Your task to perform on an android device: see sites visited before in the chrome app Image 0: 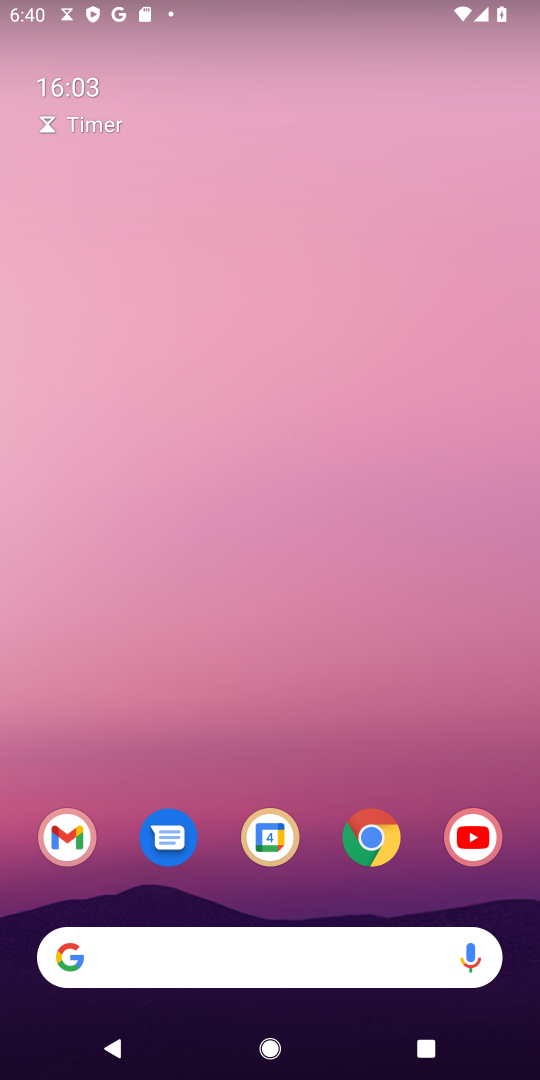
Step 0: press home button
Your task to perform on an android device: see sites visited before in the chrome app Image 1: 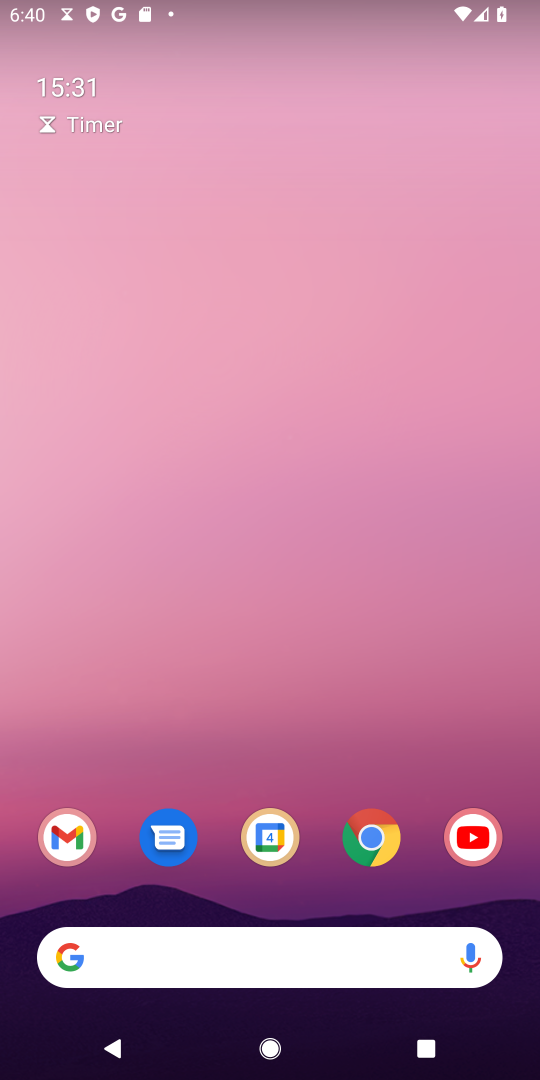
Step 1: click (375, 830)
Your task to perform on an android device: see sites visited before in the chrome app Image 2: 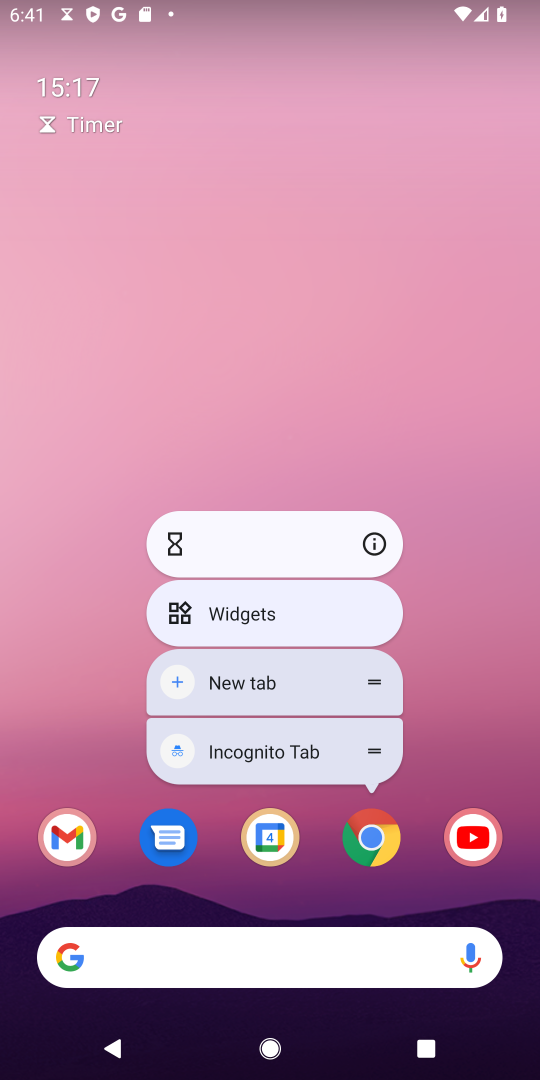
Step 2: click (366, 833)
Your task to perform on an android device: see sites visited before in the chrome app Image 3: 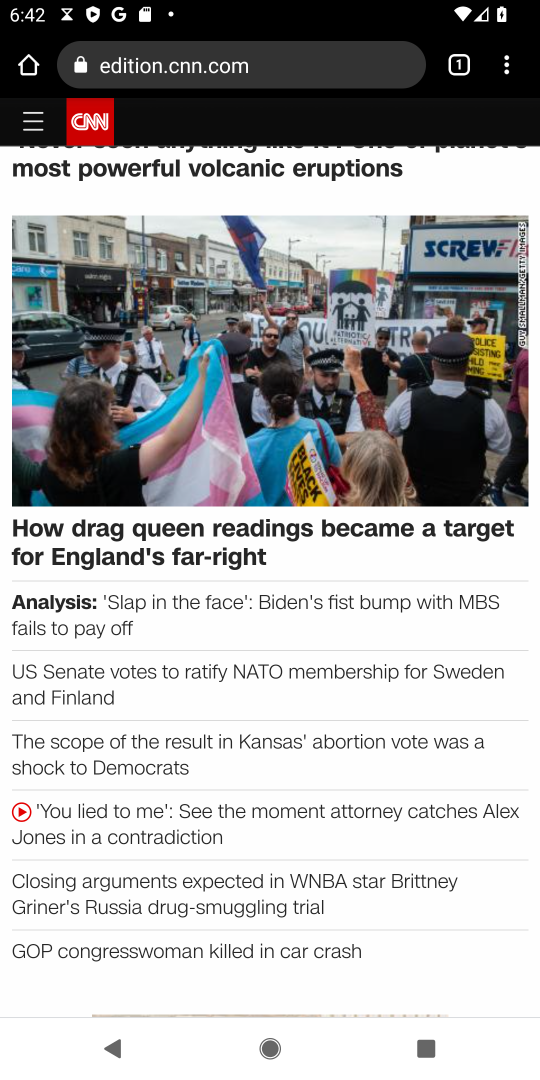
Step 3: click (504, 72)
Your task to perform on an android device: see sites visited before in the chrome app Image 4: 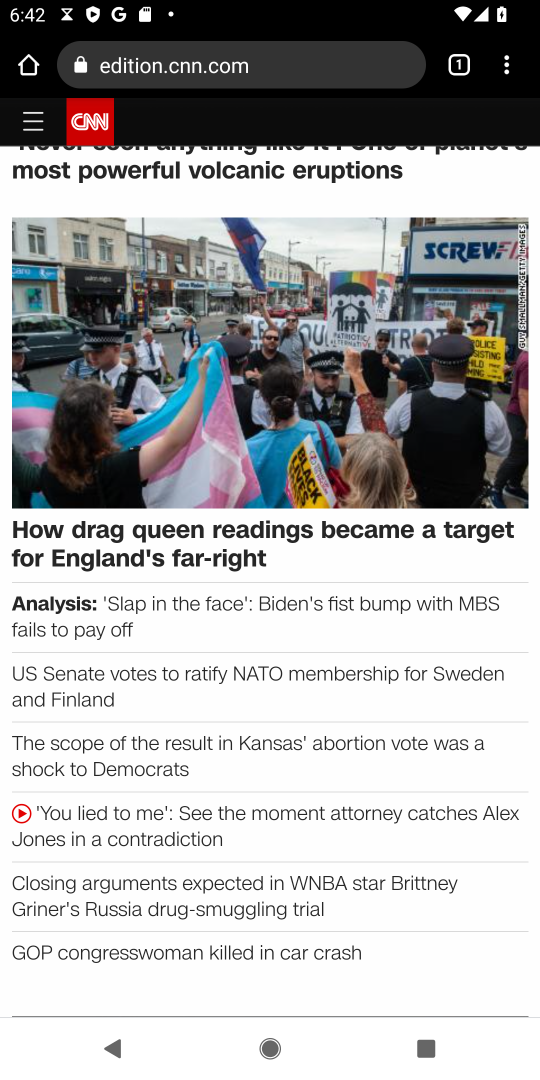
Step 4: click (512, 65)
Your task to perform on an android device: see sites visited before in the chrome app Image 5: 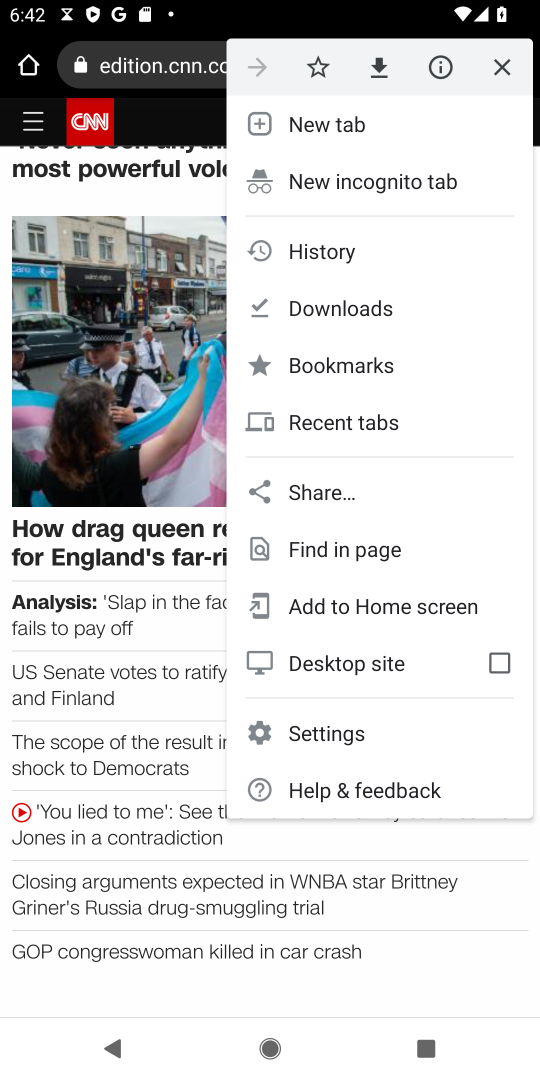
Step 5: click (345, 246)
Your task to perform on an android device: see sites visited before in the chrome app Image 6: 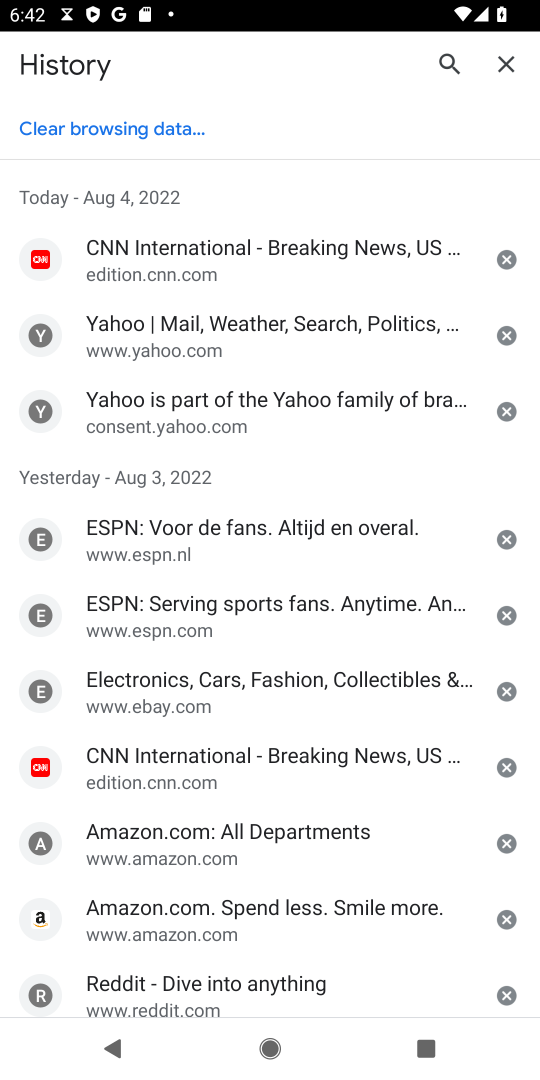
Step 6: task complete